Your task to perform on an android device: turn on sleep mode Image 0: 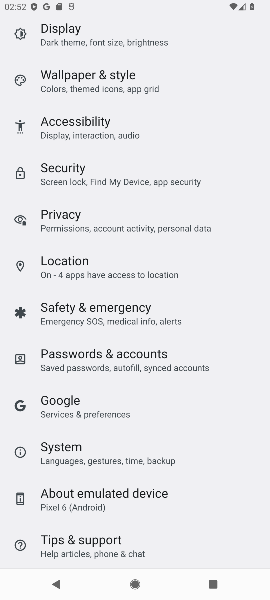
Step 0: press home button
Your task to perform on an android device: turn on sleep mode Image 1: 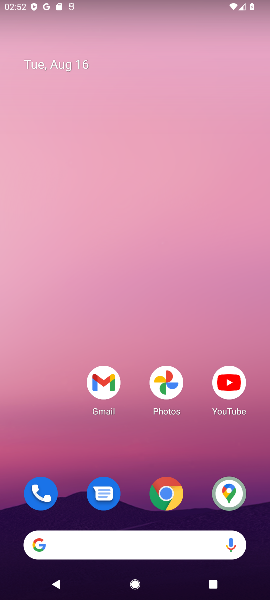
Step 1: drag from (66, 456) to (129, 63)
Your task to perform on an android device: turn on sleep mode Image 2: 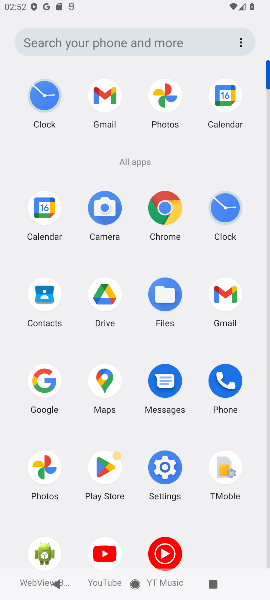
Step 2: click (156, 472)
Your task to perform on an android device: turn on sleep mode Image 3: 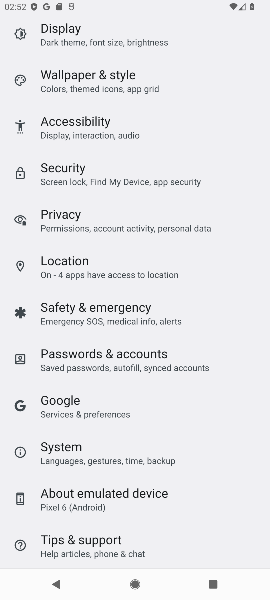
Step 3: drag from (244, 201) to (235, 323)
Your task to perform on an android device: turn on sleep mode Image 4: 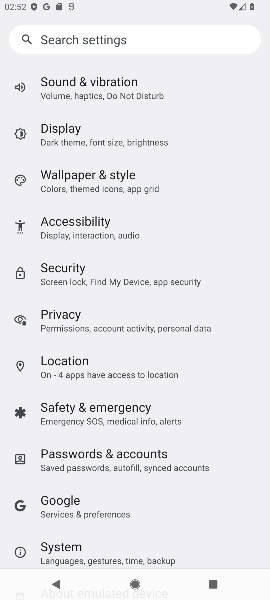
Step 4: drag from (243, 178) to (245, 315)
Your task to perform on an android device: turn on sleep mode Image 5: 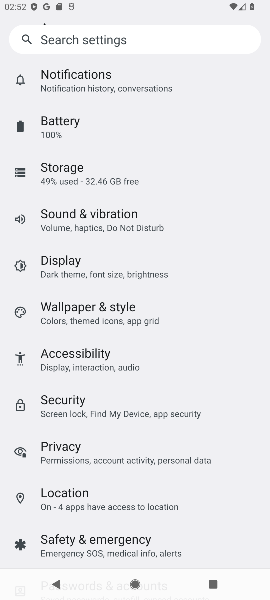
Step 5: drag from (235, 159) to (240, 276)
Your task to perform on an android device: turn on sleep mode Image 6: 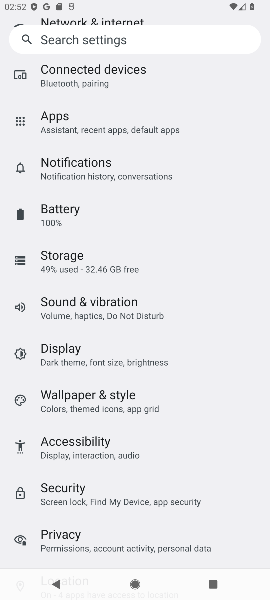
Step 6: drag from (217, 190) to (227, 300)
Your task to perform on an android device: turn on sleep mode Image 7: 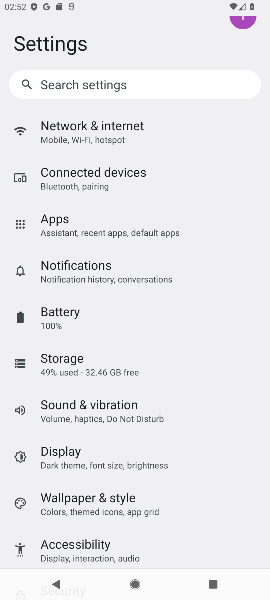
Step 7: drag from (227, 176) to (226, 326)
Your task to perform on an android device: turn on sleep mode Image 8: 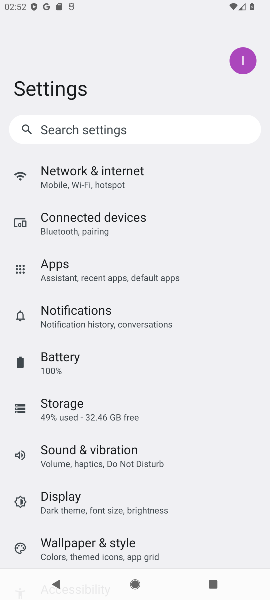
Step 8: drag from (229, 400) to (238, 298)
Your task to perform on an android device: turn on sleep mode Image 9: 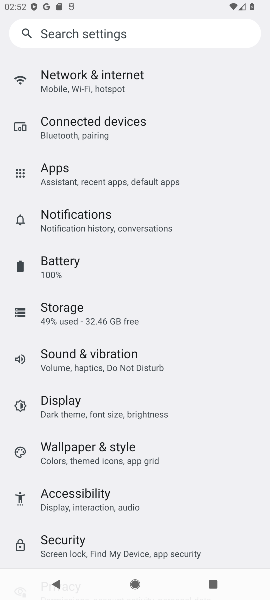
Step 9: drag from (225, 280) to (227, 247)
Your task to perform on an android device: turn on sleep mode Image 10: 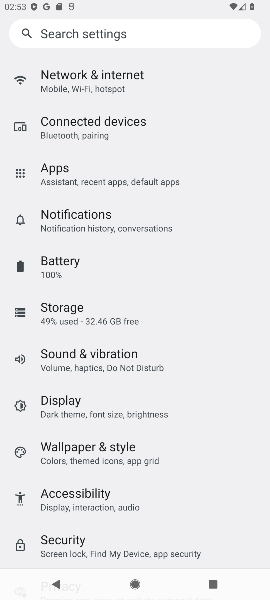
Step 10: click (169, 412)
Your task to perform on an android device: turn on sleep mode Image 11: 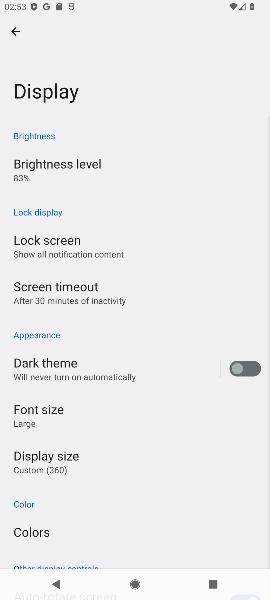
Step 11: task complete